Your task to perform on an android device: open app "Adobe Acrobat Reader: Edit PDF" (install if not already installed) and go to login screen Image 0: 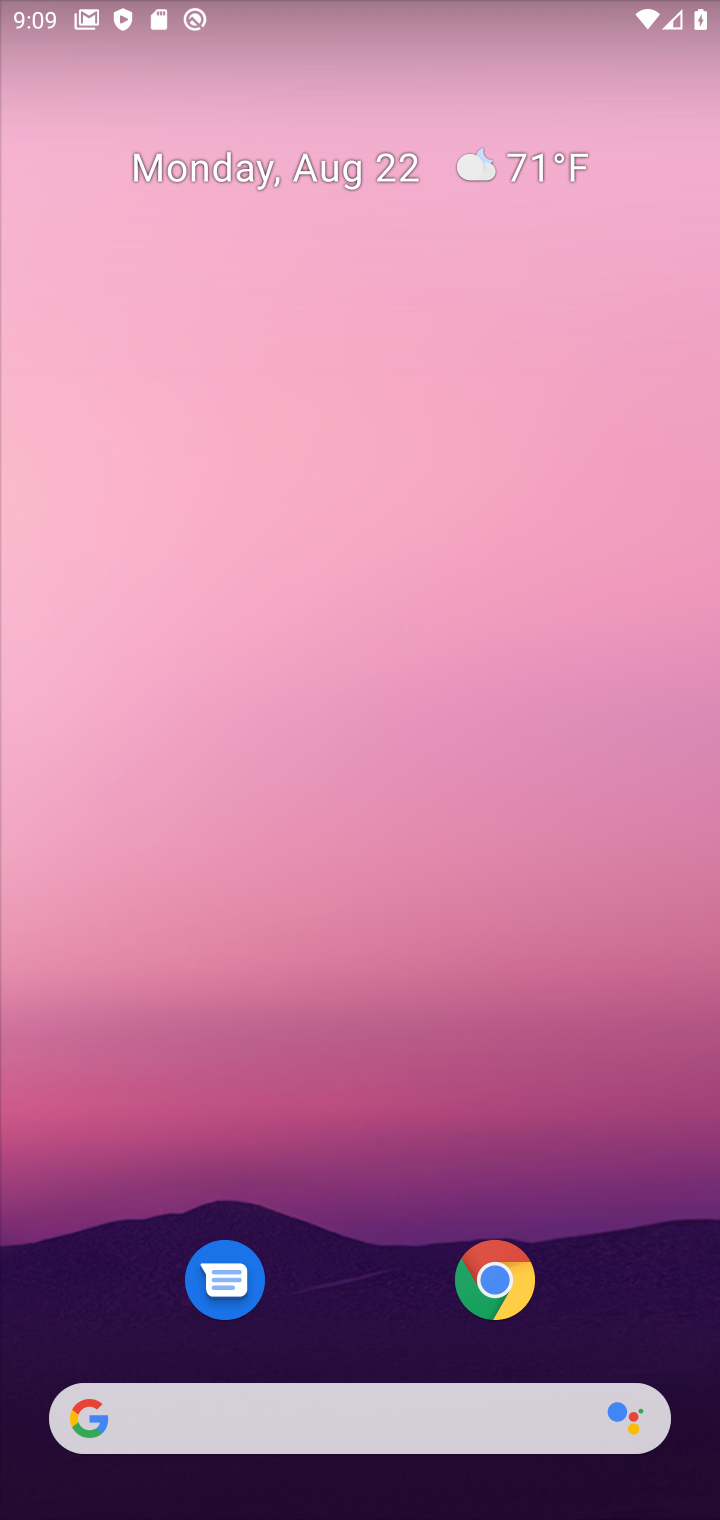
Step 0: drag from (262, 606) to (439, 8)
Your task to perform on an android device: open app "Adobe Acrobat Reader: Edit PDF" (install if not already installed) and go to login screen Image 1: 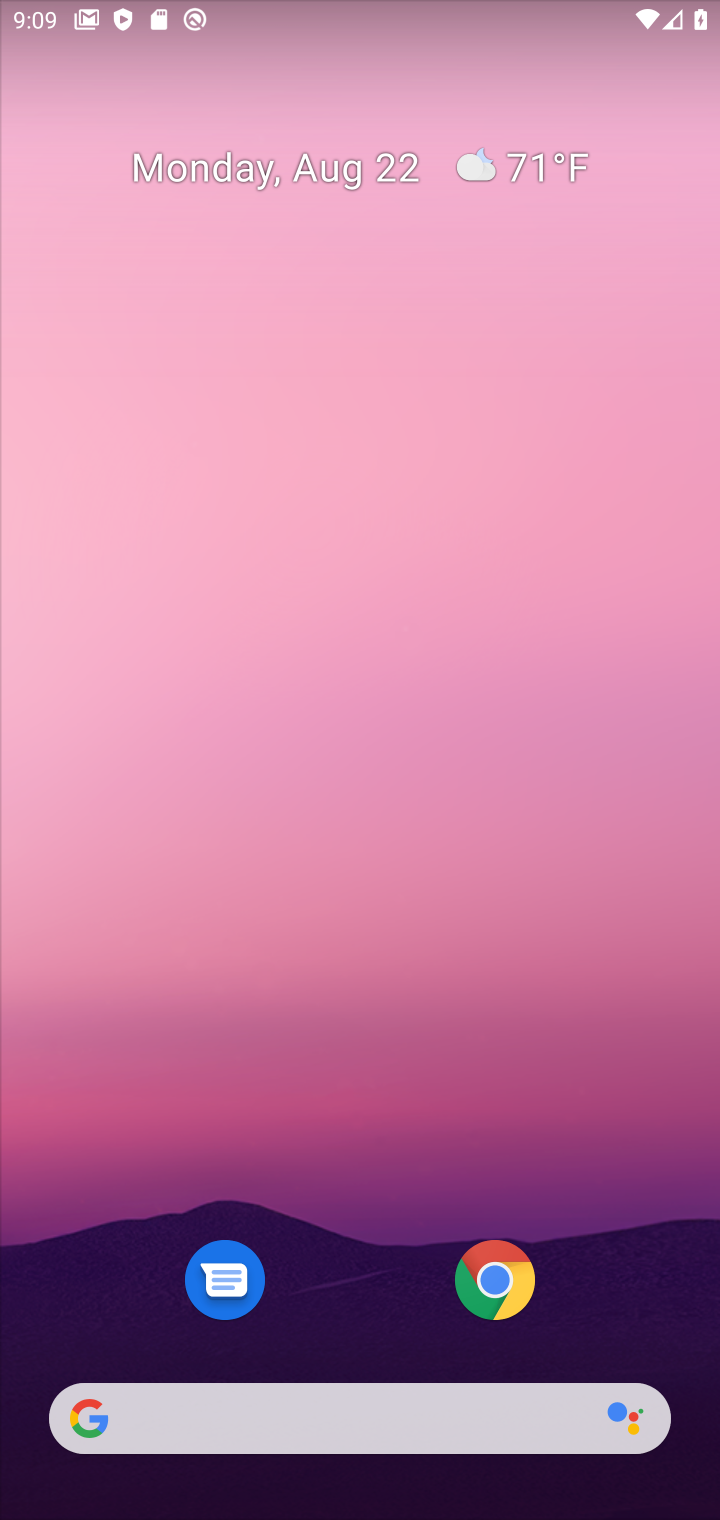
Step 1: drag from (372, 941) to (421, 56)
Your task to perform on an android device: open app "Adobe Acrobat Reader: Edit PDF" (install if not already installed) and go to login screen Image 2: 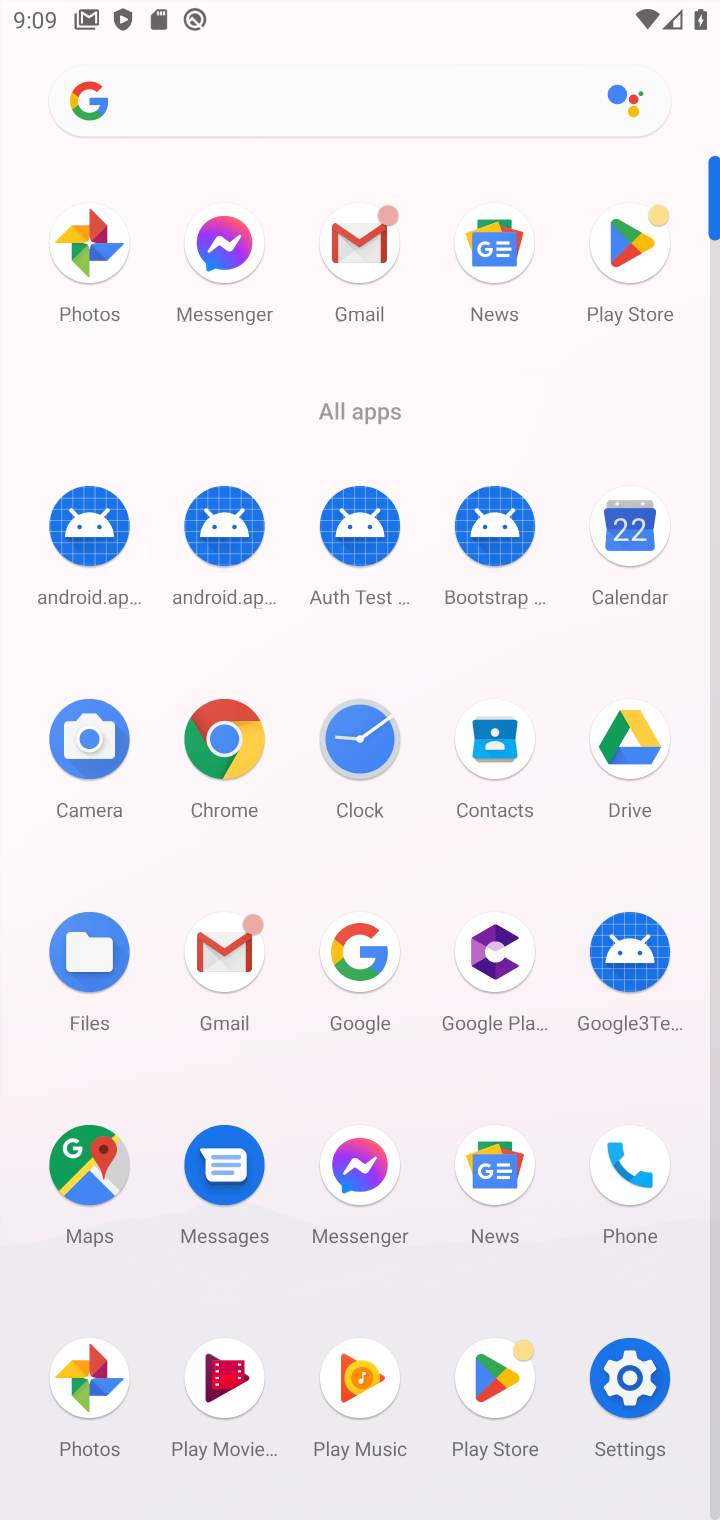
Step 2: click (611, 242)
Your task to perform on an android device: open app "Adobe Acrobat Reader: Edit PDF" (install if not already installed) and go to login screen Image 3: 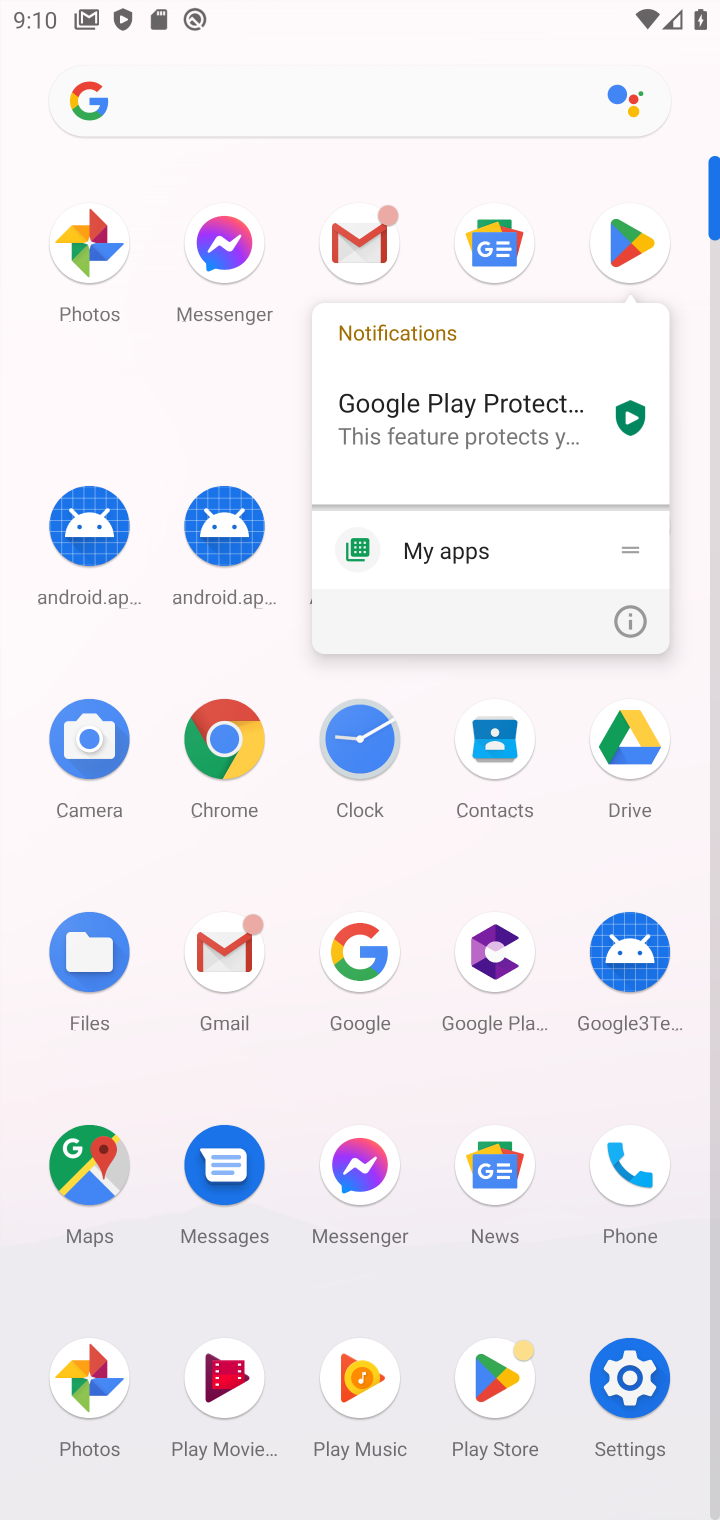
Step 3: click (611, 242)
Your task to perform on an android device: open app "Adobe Acrobat Reader: Edit PDF" (install if not already installed) and go to login screen Image 4: 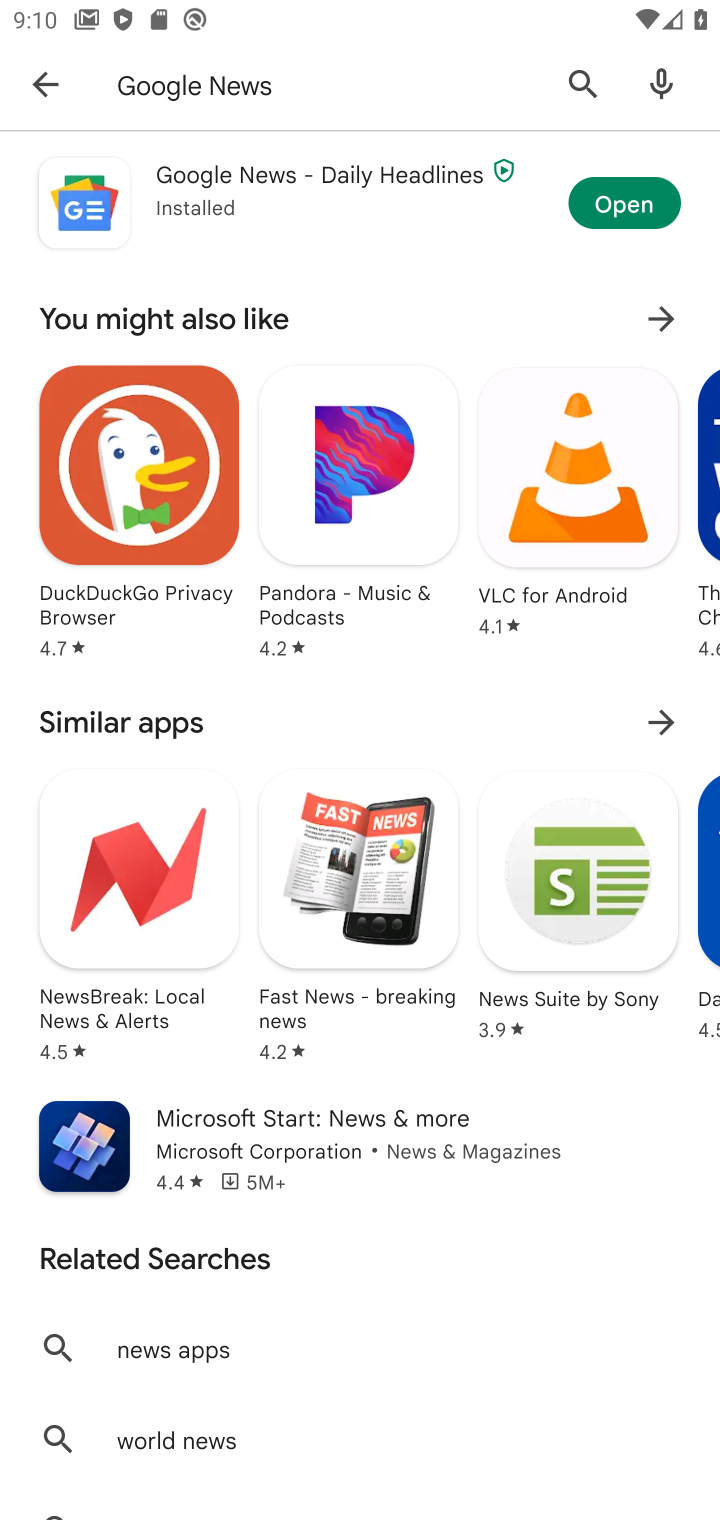
Step 4: press back button
Your task to perform on an android device: open app "Adobe Acrobat Reader: Edit PDF" (install if not already installed) and go to login screen Image 5: 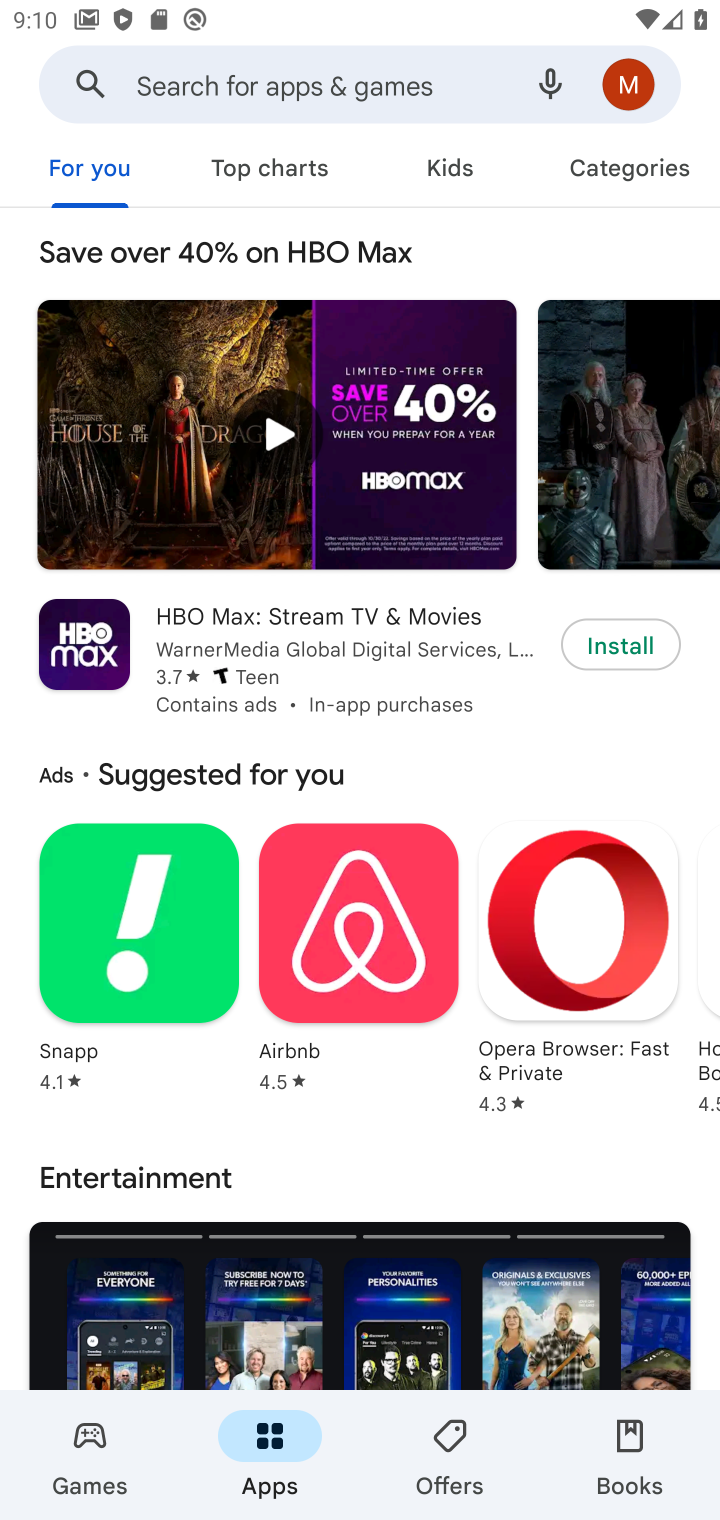
Step 5: click (304, 95)
Your task to perform on an android device: open app "Adobe Acrobat Reader: Edit PDF" (install if not already installed) and go to login screen Image 6: 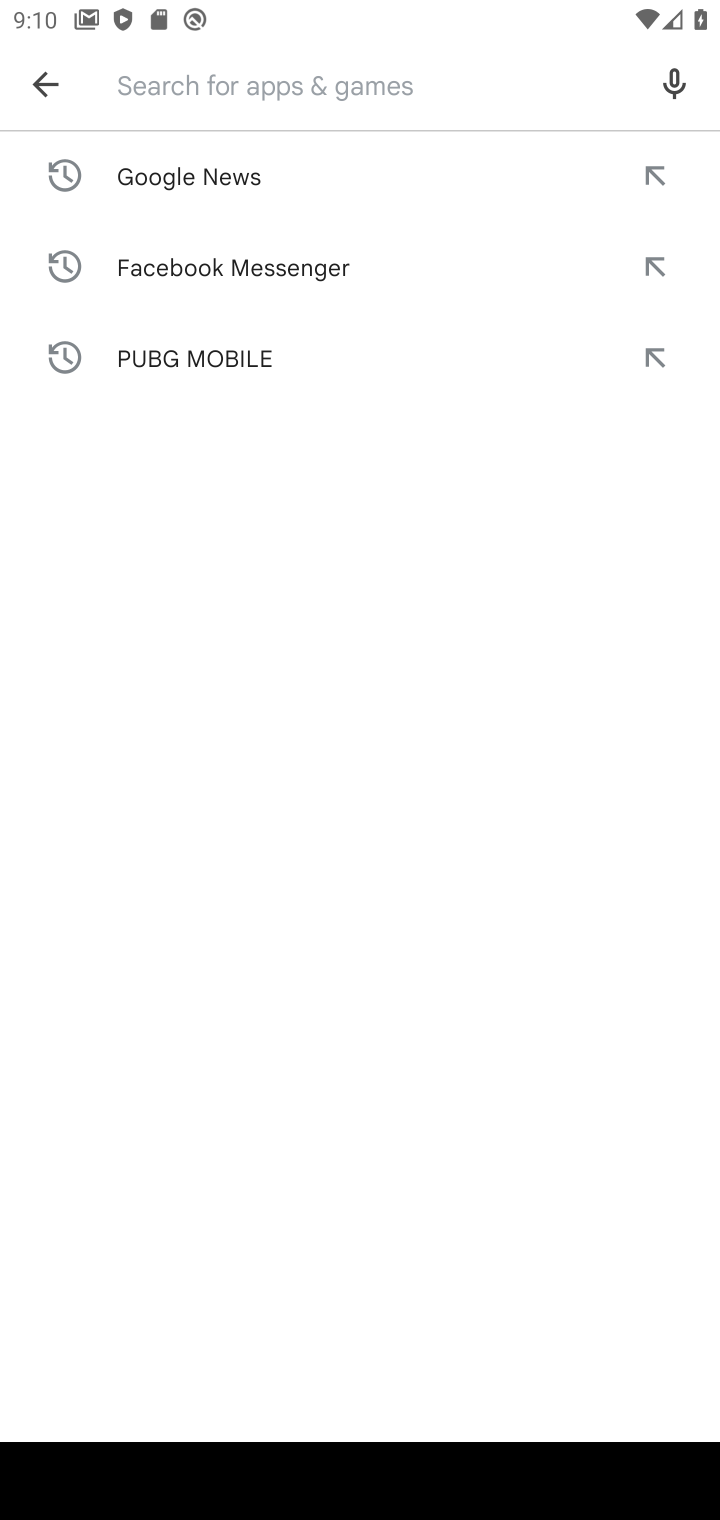
Step 6: type "Adobe Acrobat Reader: Edit PDF"
Your task to perform on an android device: open app "Adobe Acrobat Reader: Edit PDF" (install if not already installed) and go to login screen Image 7: 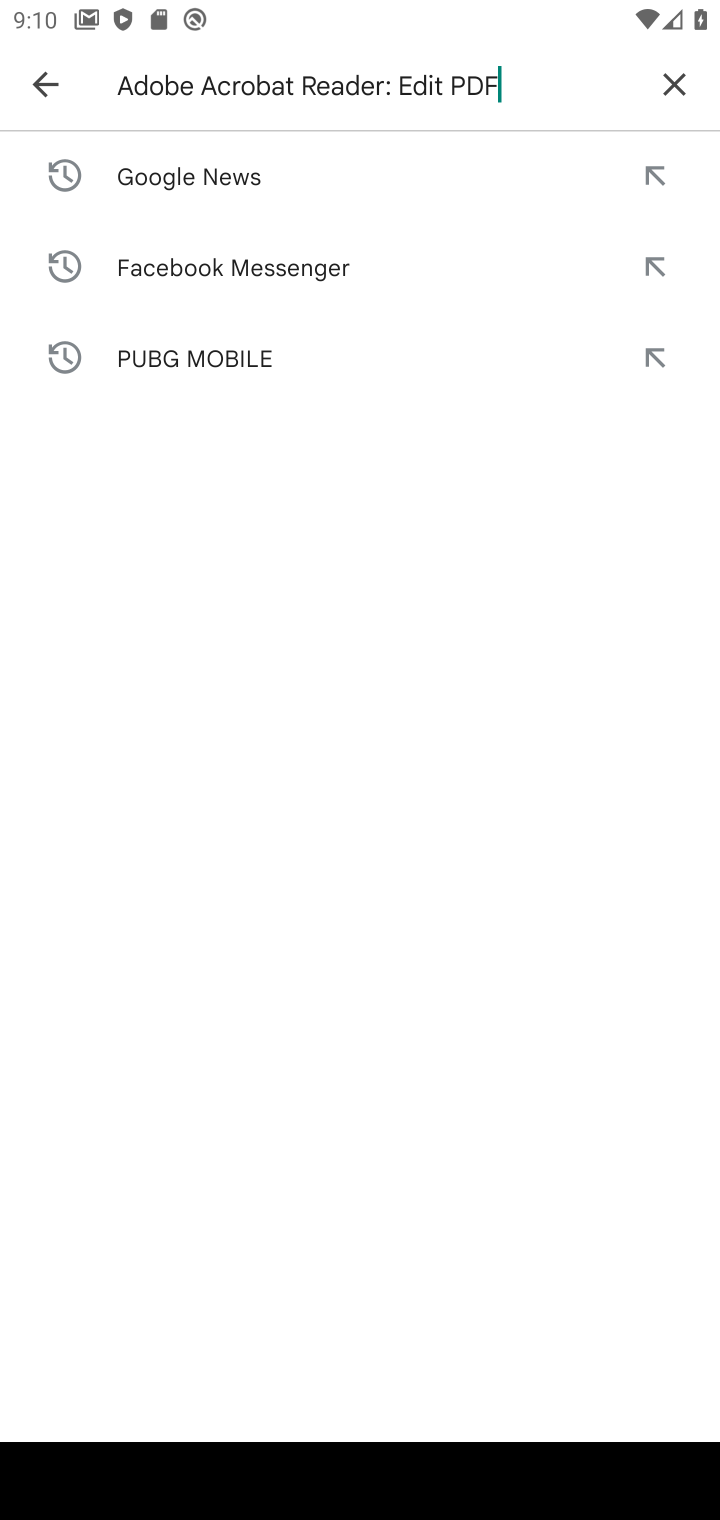
Step 7: press enter
Your task to perform on an android device: open app "Adobe Acrobat Reader: Edit PDF" (install if not already installed) and go to login screen Image 8: 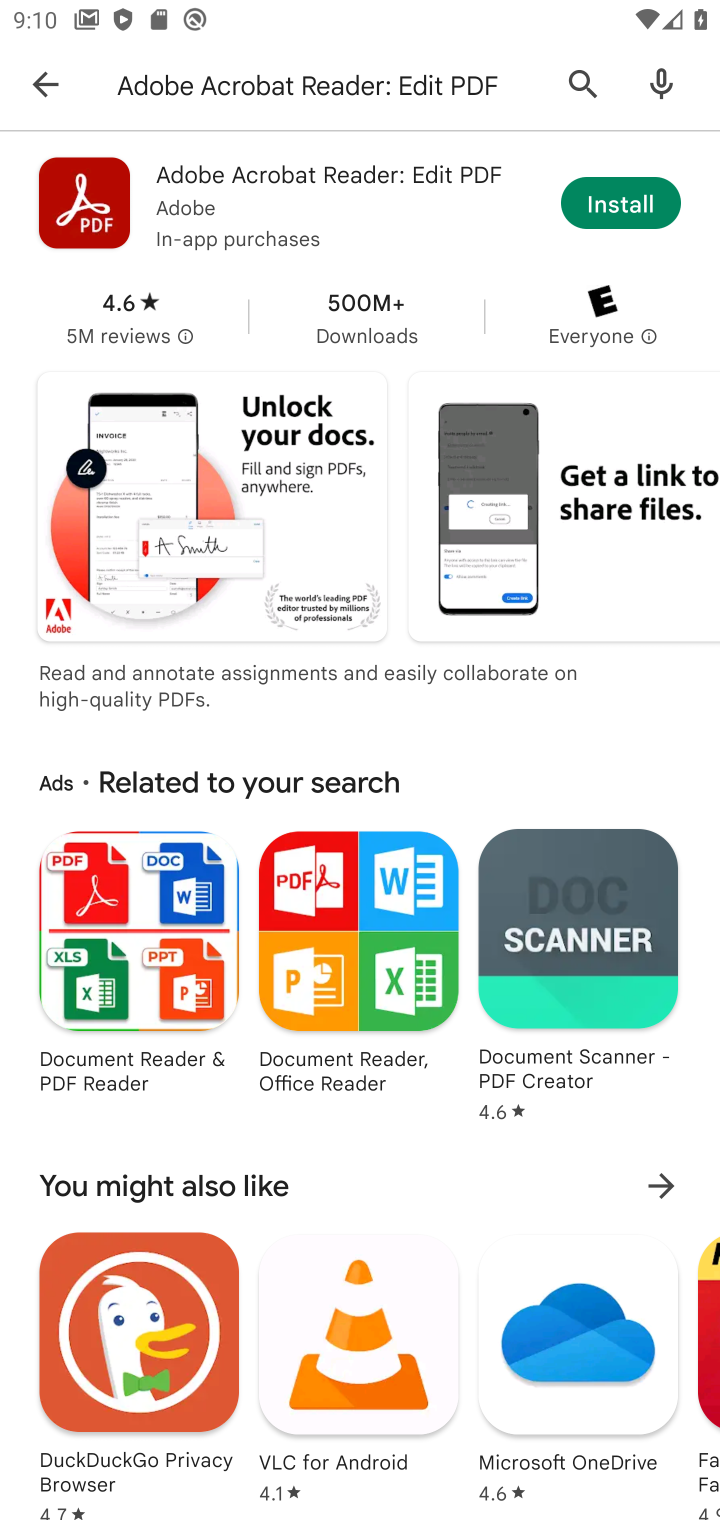
Step 8: click (622, 213)
Your task to perform on an android device: open app "Adobe Acrobat Reader: Edit PDF" (install if not already installed) and go to login screen Image 9: 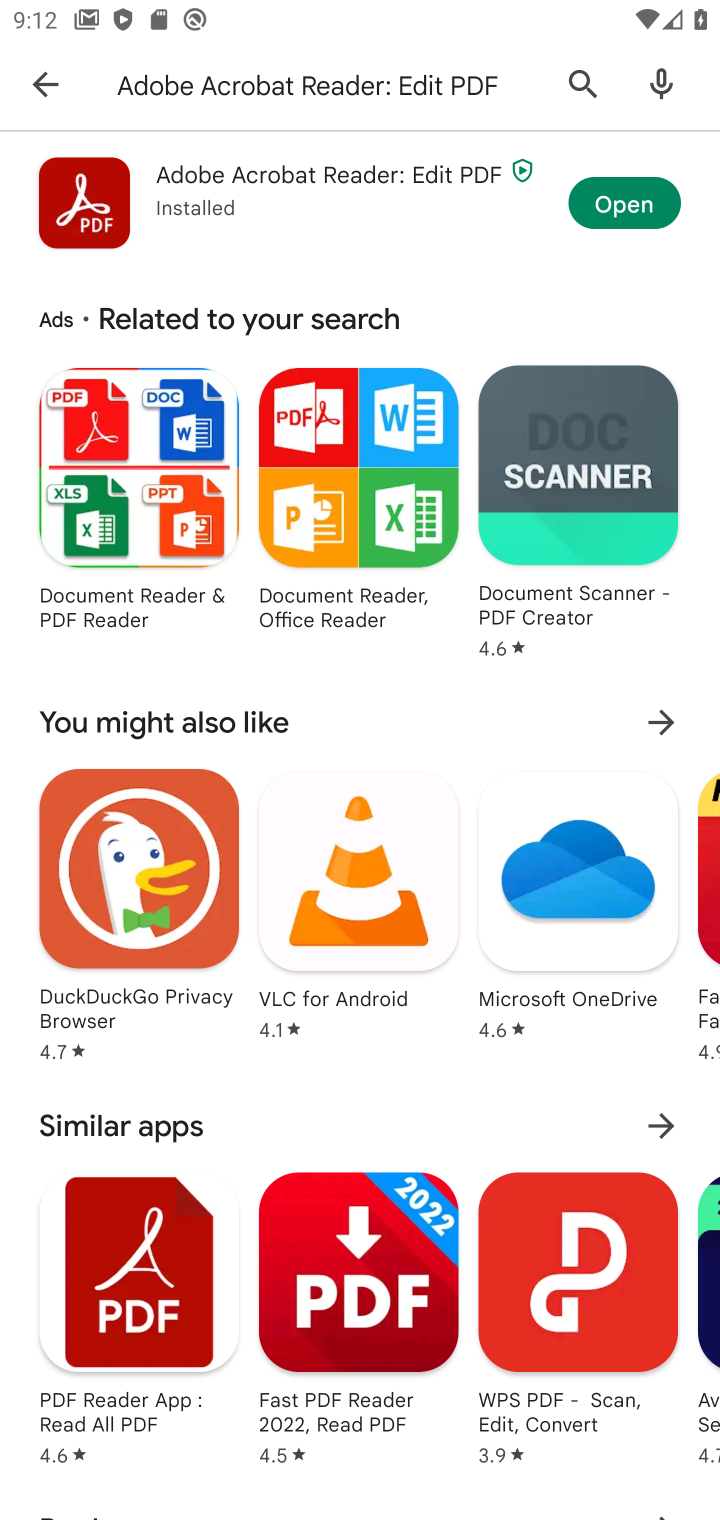
Step 9: click (631, 208)
Your task to perform on an android device: open app "Adobe Acrobat Reader: Edit PDF" (install if not already installed) and go to login screen Image 10: 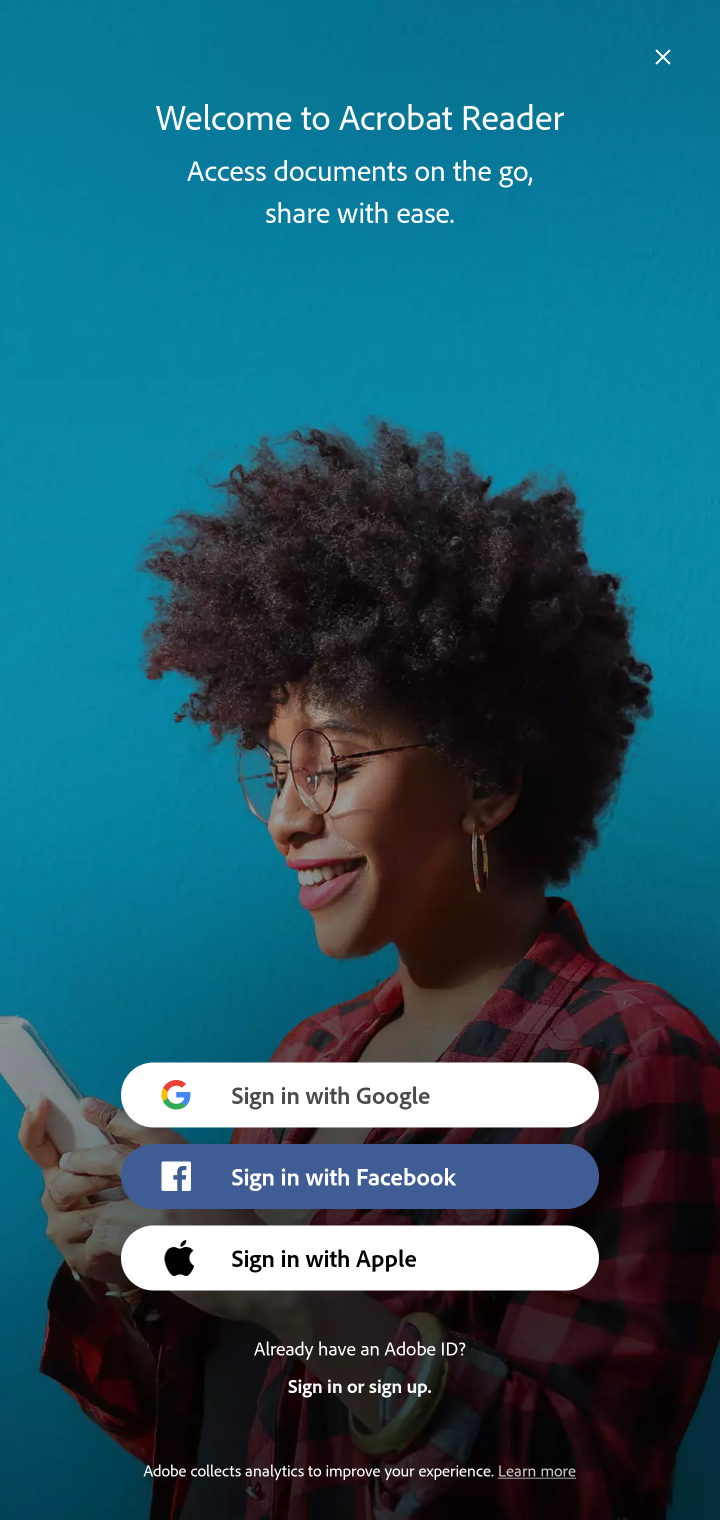
Step 10: task complete